Your task to perform on an android device: choose inbox layout in the gmail app Image 0: 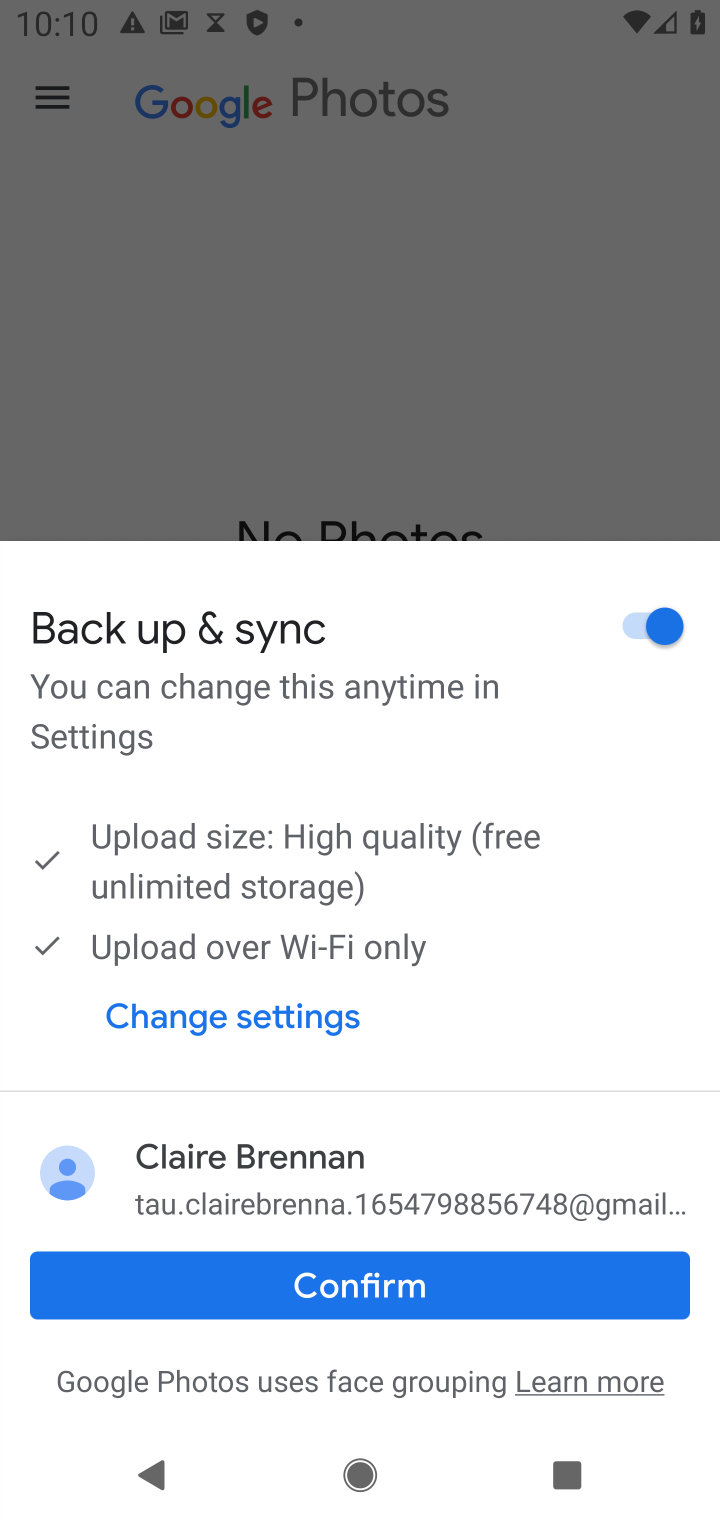
Step 0: press home button
Your task to perform on an android device: choose inbox layout in the gmail app Image 1: 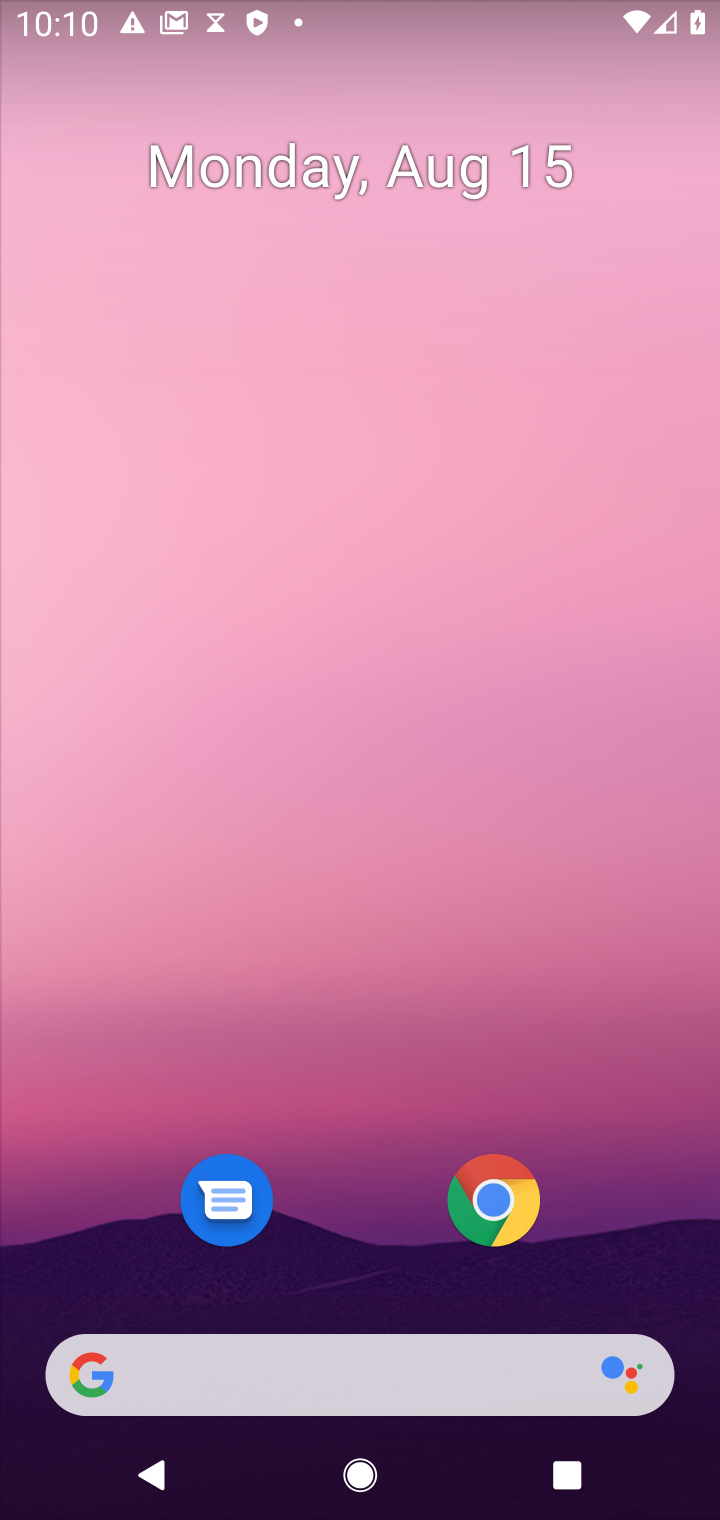
Step 1: drag from (353, 1173) to (360, 442)
Your task to perform on an android device: choose inbox layout in the gmail app Image 2: 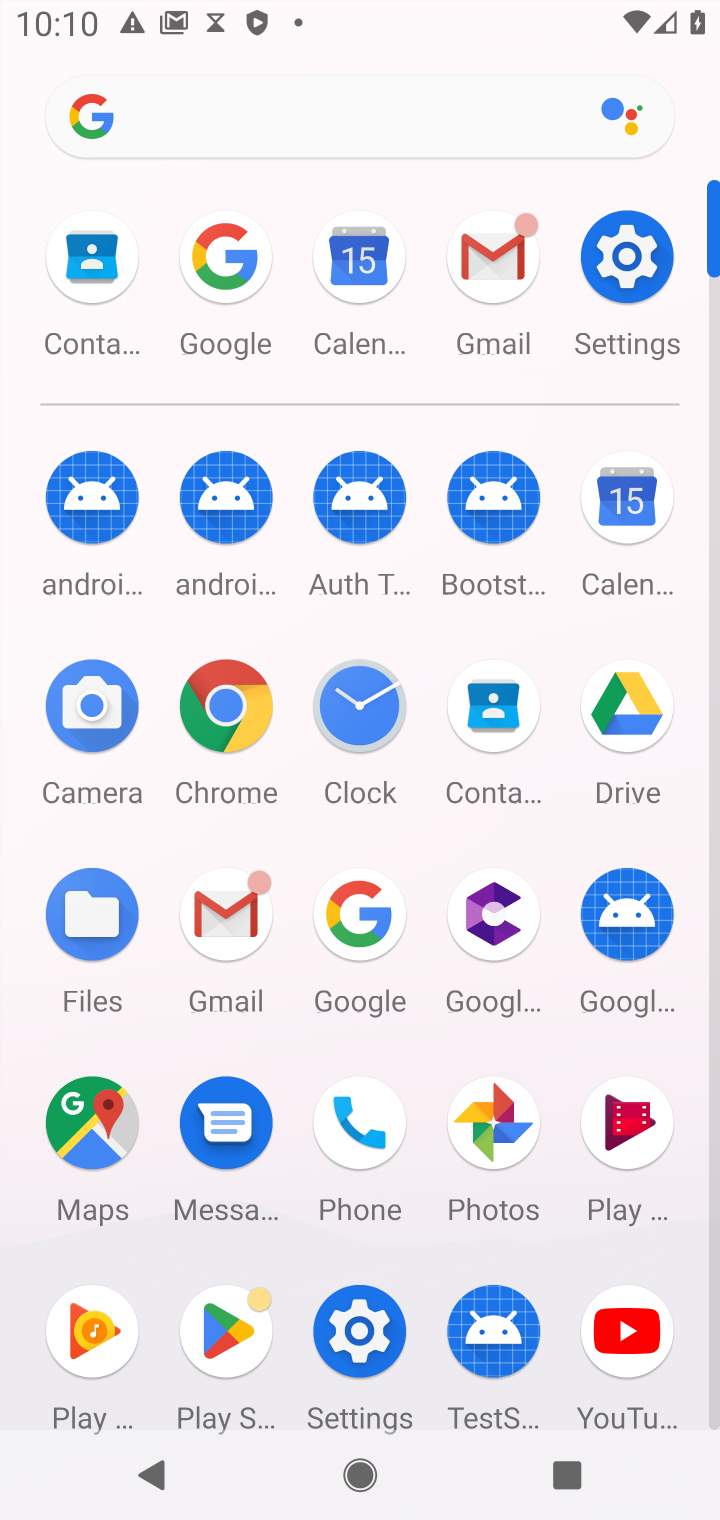
Step 2: click (482, 296)
Your task to perform on an android device: choose inbox layout in the gmail app Image 3: 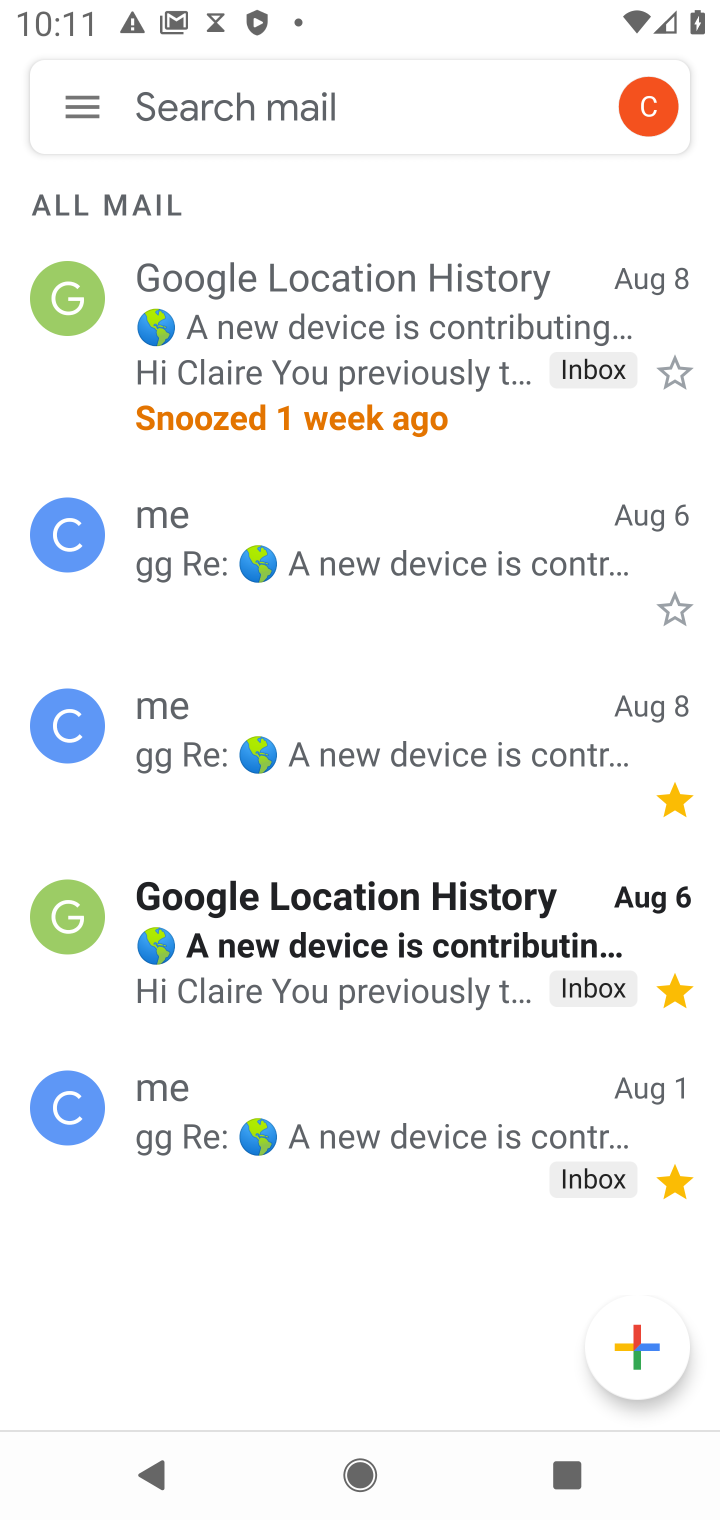
Step 3: click (153, 102)
Your task to perform on an android device: choose inbox layout in the gmail app Image 4: 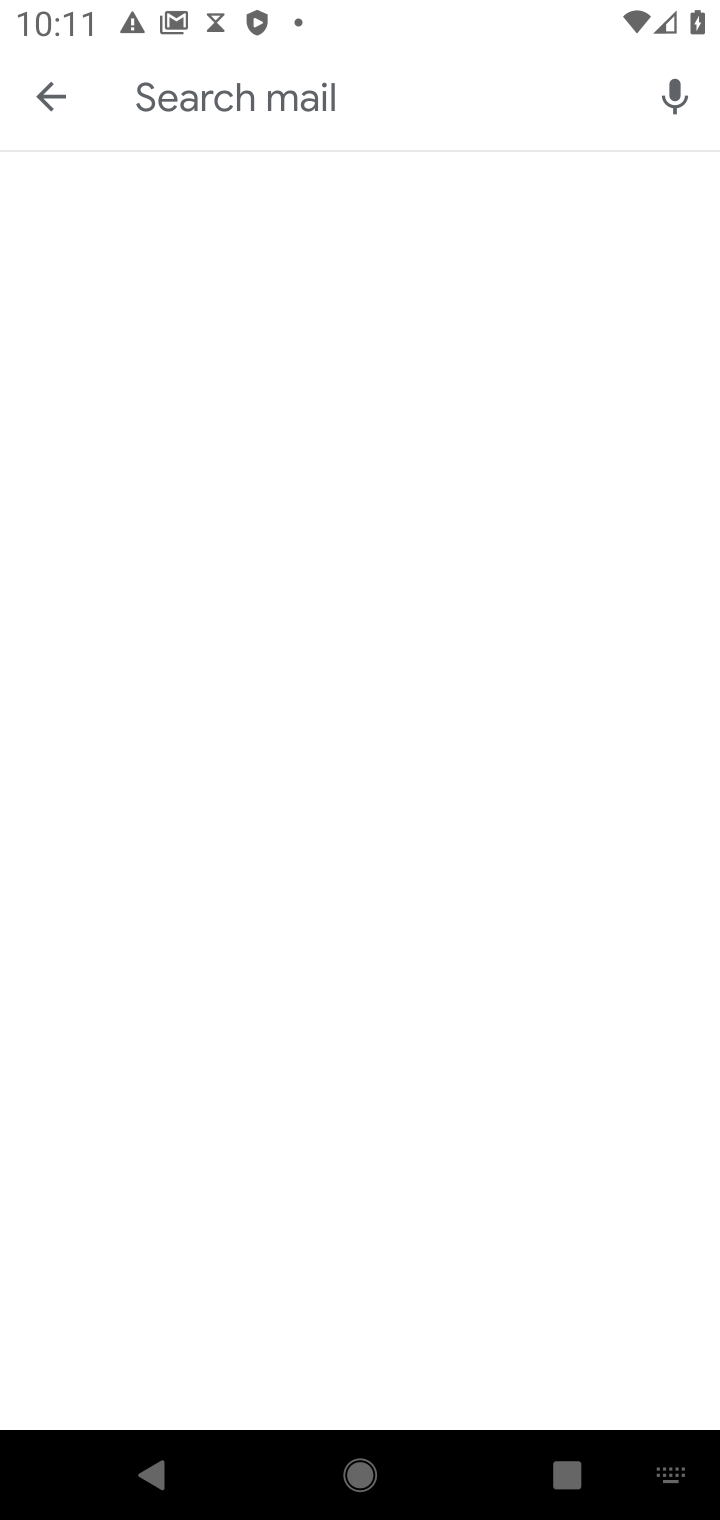
Step 4: click (57, 99)
Your task to perform on an android device: choose inbox layout in the gmail app Image 5: 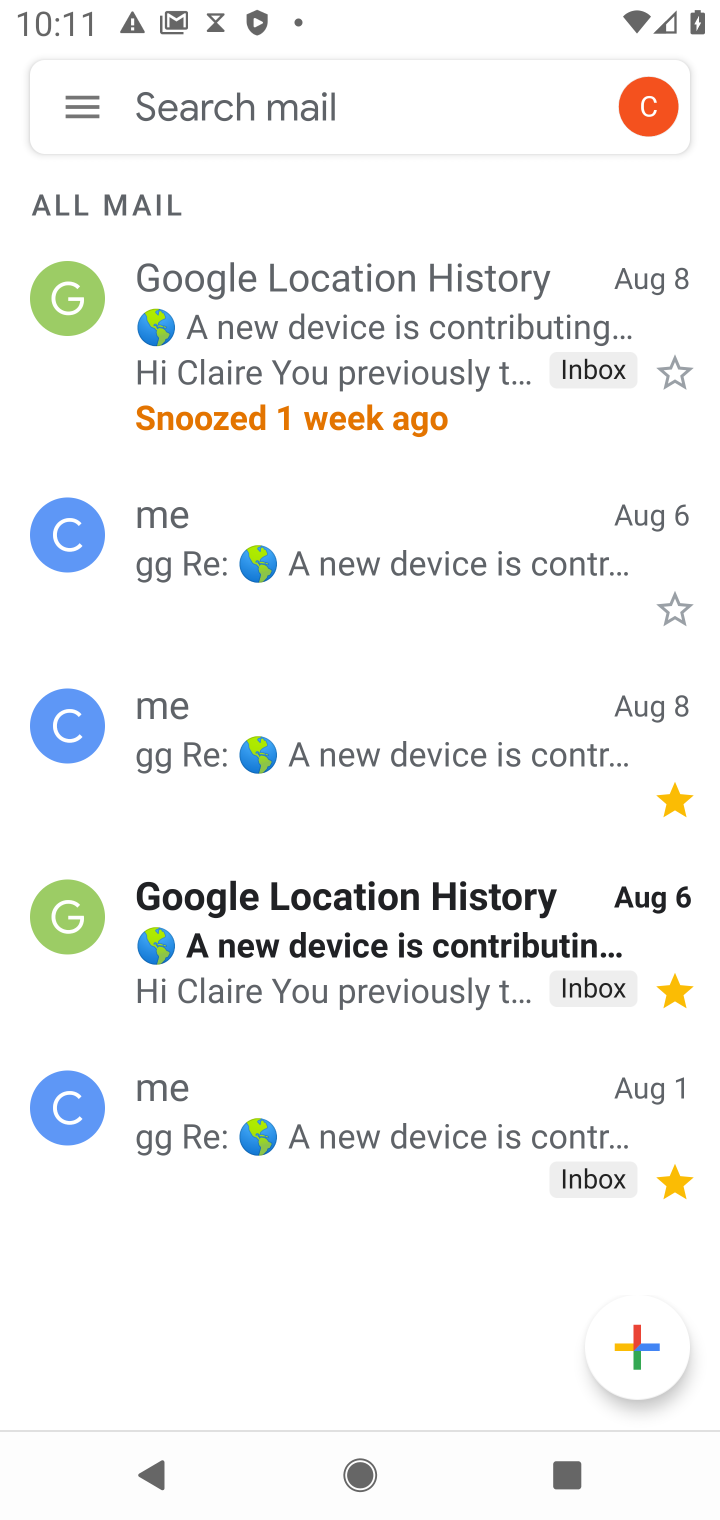
Step 5: click (57, 99)
Your task to perform on an android device: choose inbox layout in the gmail app Image 6: 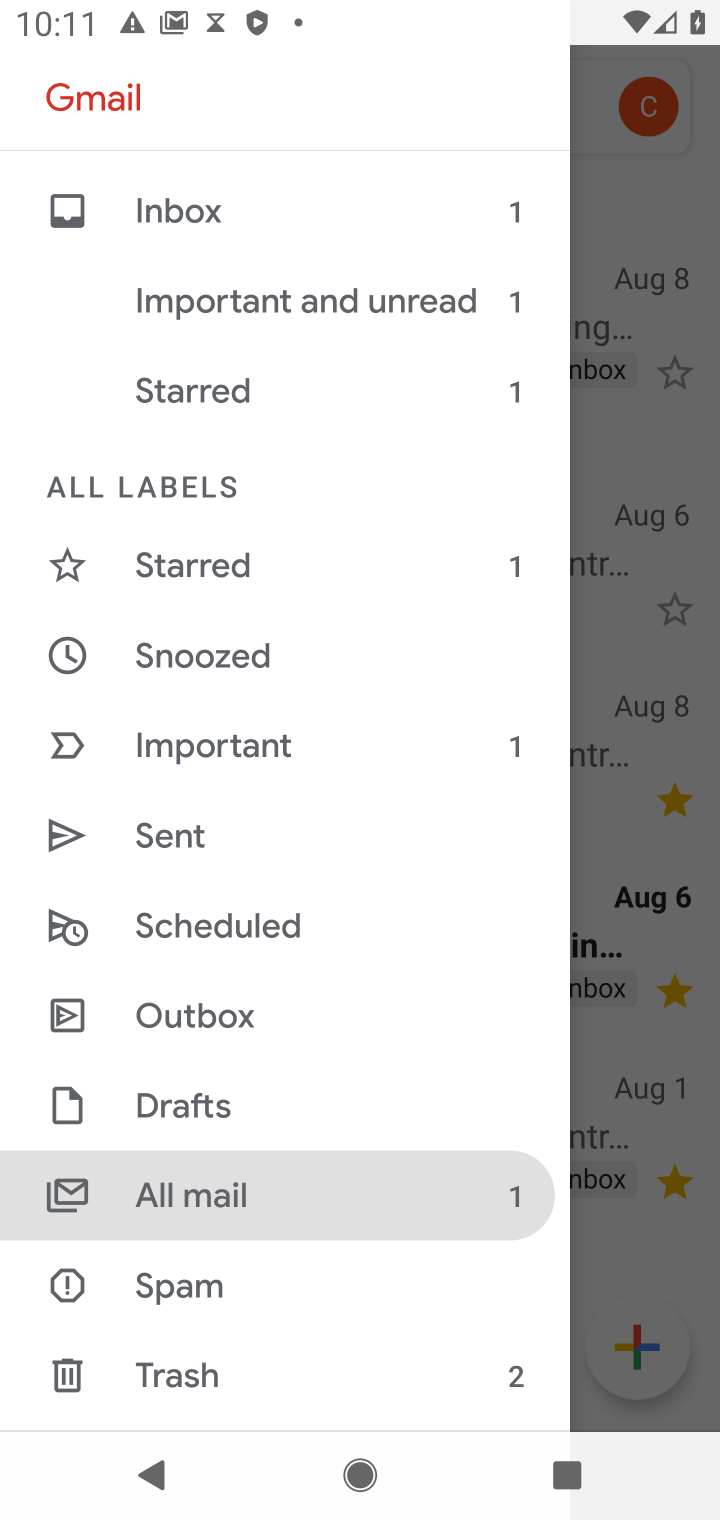
Step 6: drag from (312, 1227) to (264, 371)
Your task to perform on an android device: choose inbox layout in the gmail app Image 7: 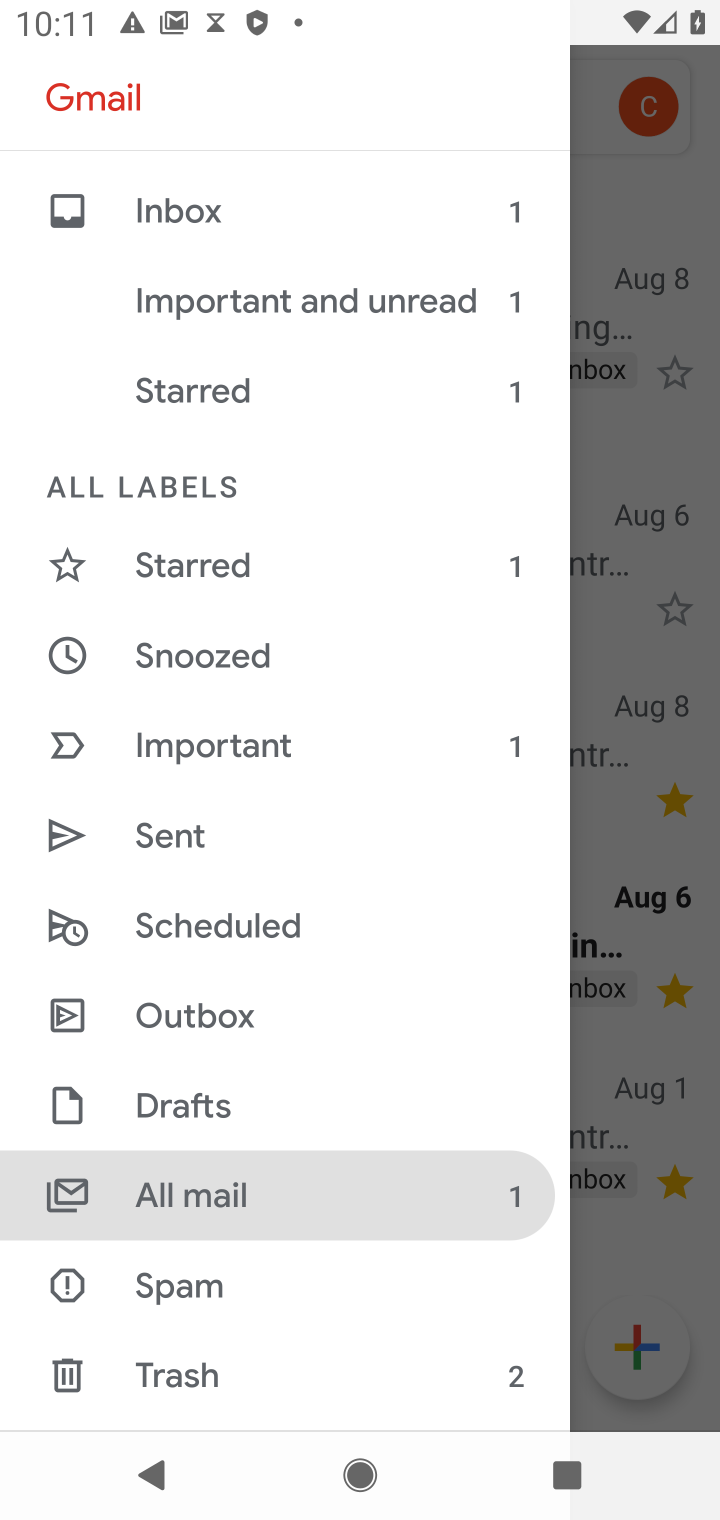
Step 7: drag from (271, 915) to (319, 363)
Your task to perform on an android device: choose inbox layout in the gmail app Image 8: 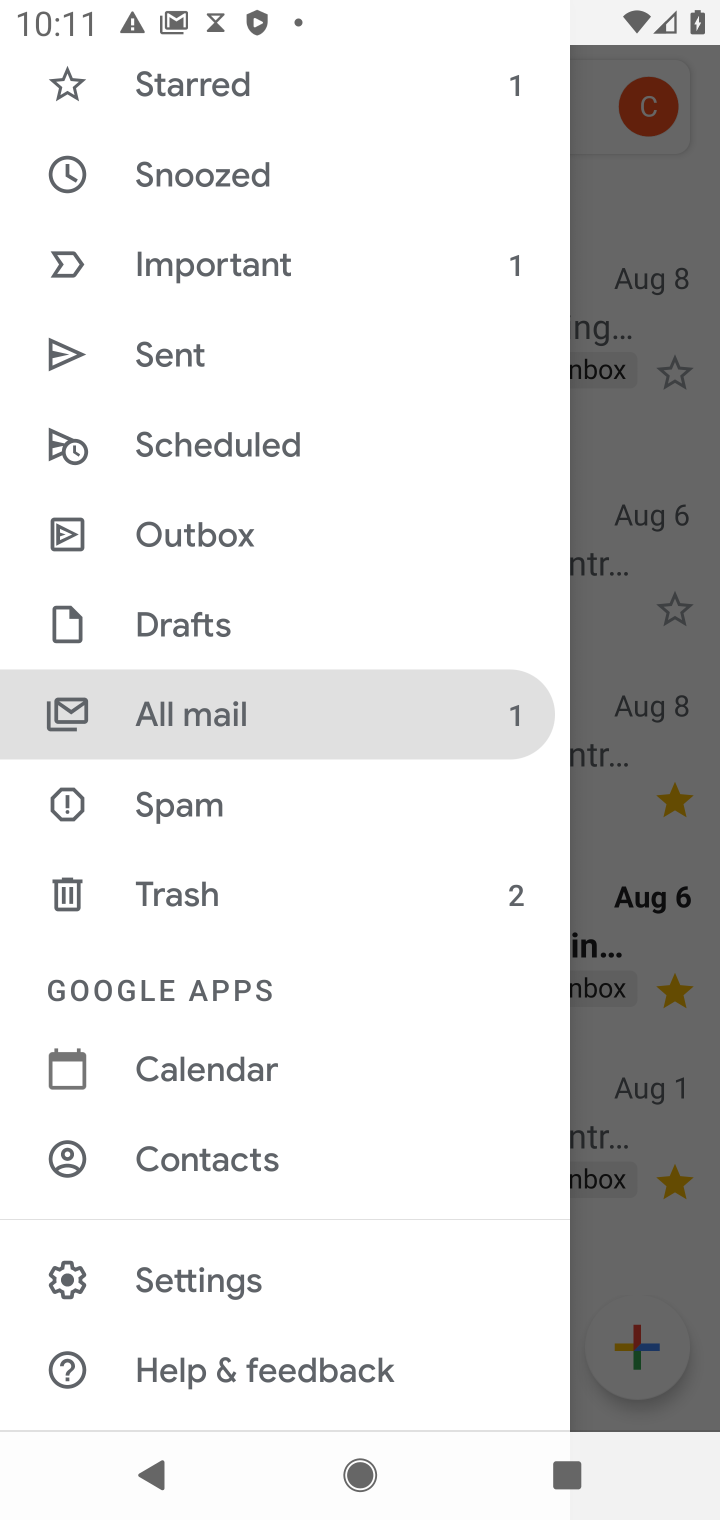
Step 8: click (214, 1267)
Your task to perform on an android device: choose inbox layout in the gmail app Image 9: 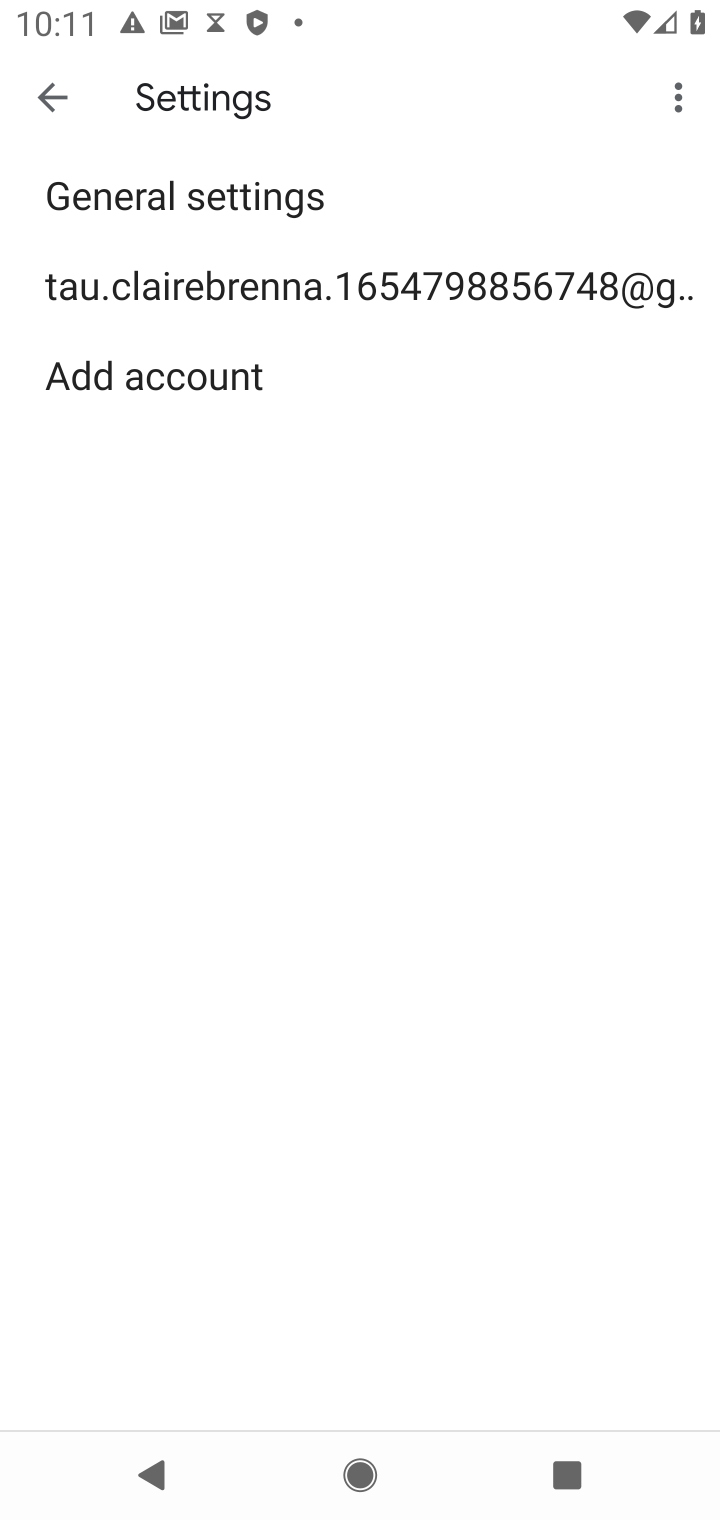
Step 9: click (177, 284)
Your task to perform on an android device: choose inbox layout in the gmail app Image 10: 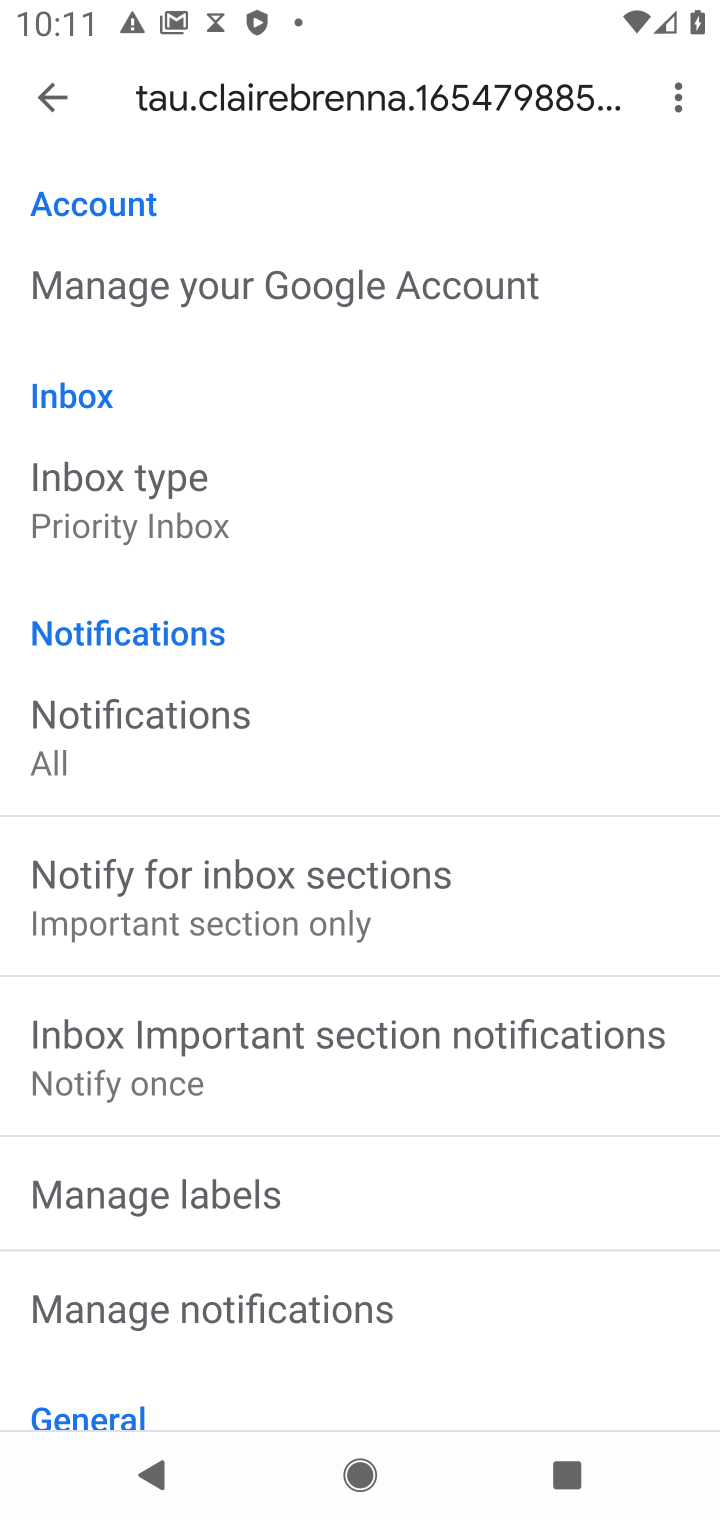
Step 10: click (249, 482)
Your task to perform on an android device: choose inbox layout in the gmail app Image 11: 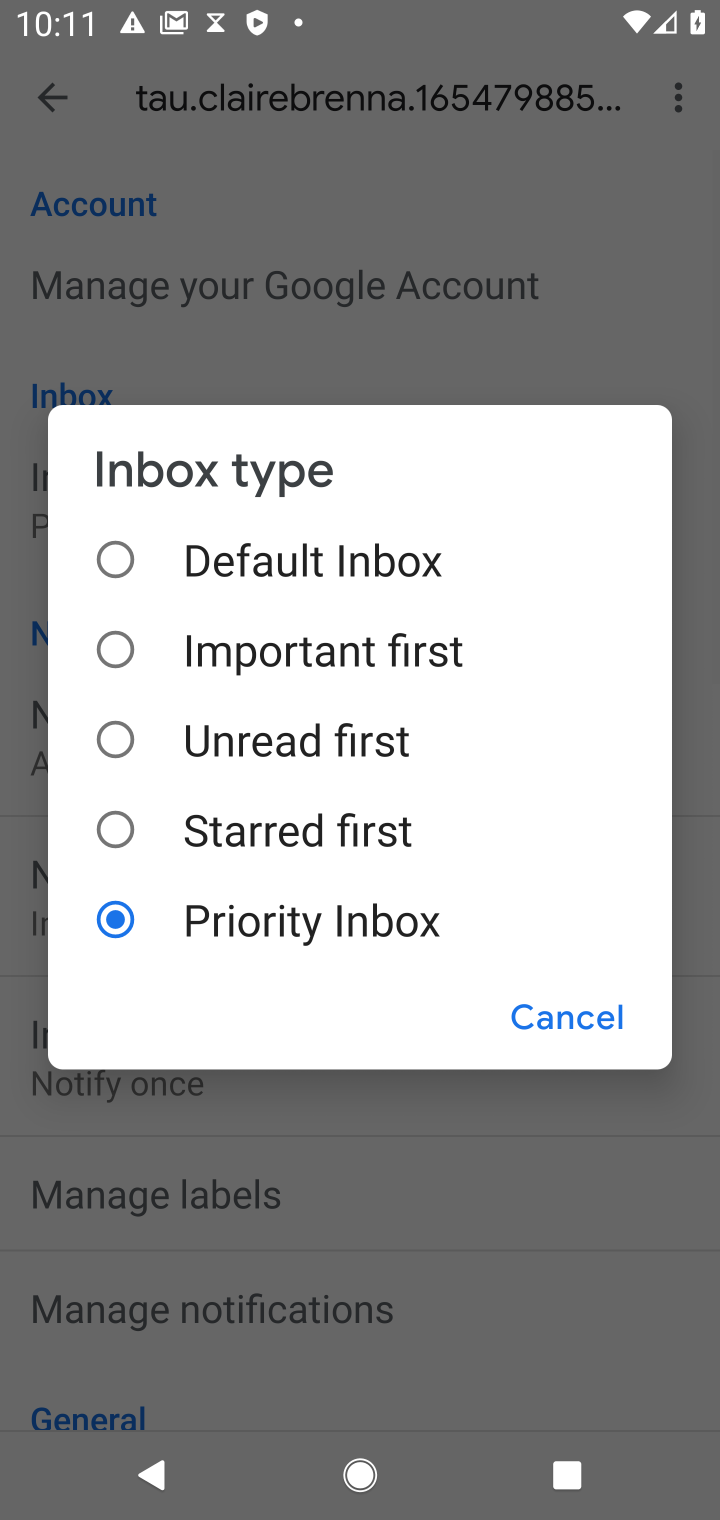
Step 11: click (289, 565)
Your task to perform on an android device: choose inbox layout in the gmail app Image 12: 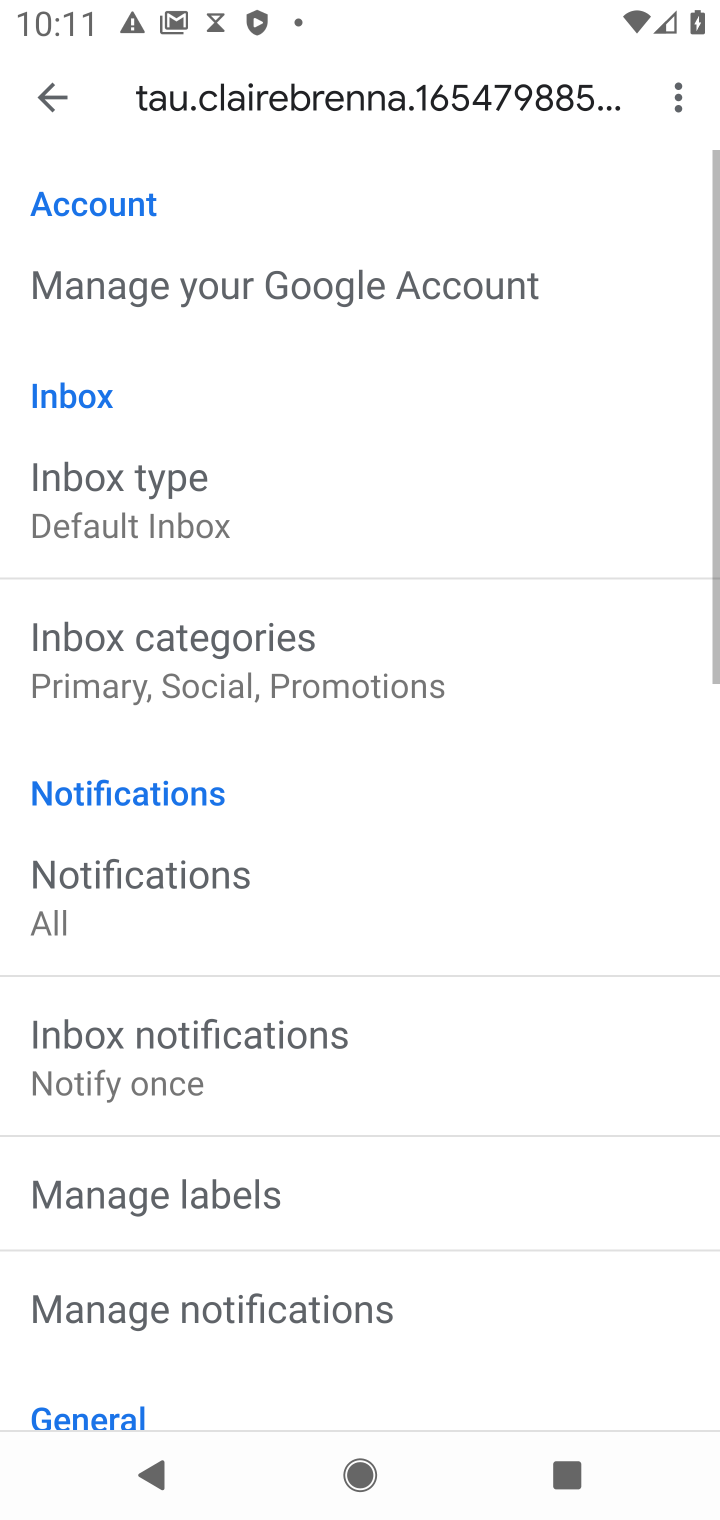
Step 12: task complete